Your task to perform on an android device: Add "asus zenbook" to the cart on costco Image 0: 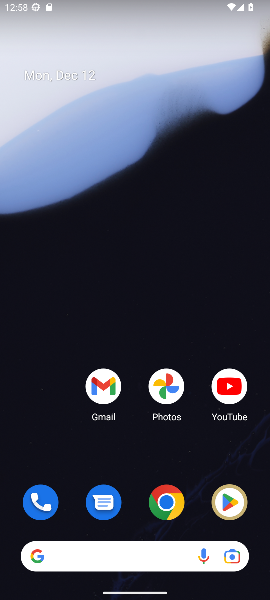
Step 0: click (161, 500)
Your task to perform on an android device: Add "asus zenbook" to the cart on costco Image 1: 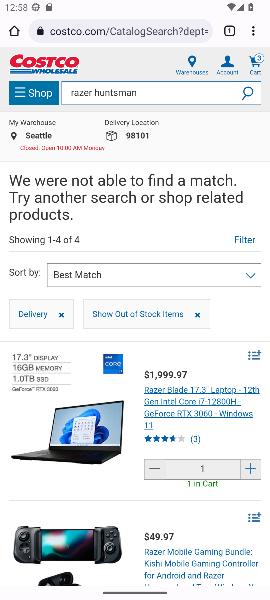
Step 1: click (144, 93)
Your task to perform on an android device: Add "asus zenbook" to the cart on costco Image 2: 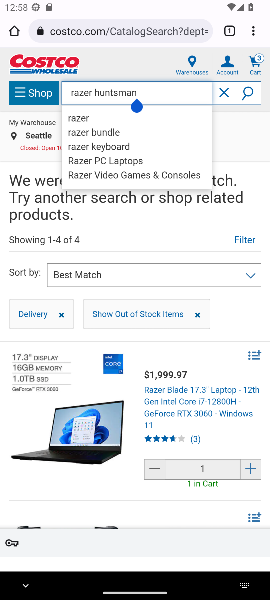
Step 2: click (219, 94)
Your task to perform on an android device: Add "asus zenbook" to the cart on costco Image 3: 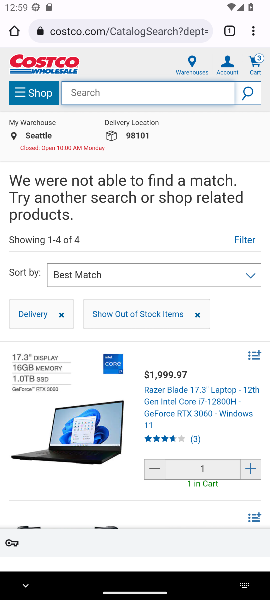
Step 3: type "asus zenbook"
Your task to perform on an android device: Add "asus zenbook" to the cart on costco Image 4: 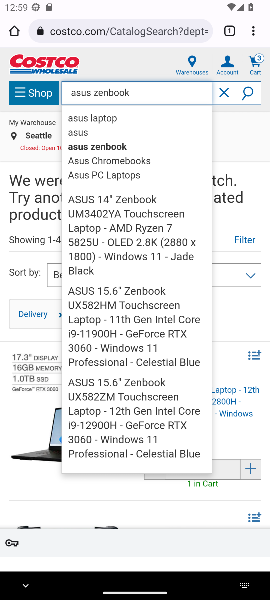
Step 4: click (243, 94)
Your task to perform on an android device: Add "asus zenbook" to the cart on costco Image 5: 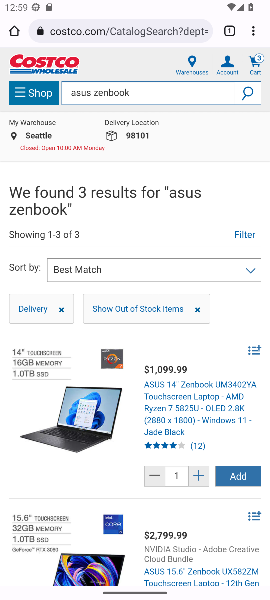
Step 5: click (226, 482)
Your task to perform on an android device: Add "asus zenbook" to the cart on costco Image 6: 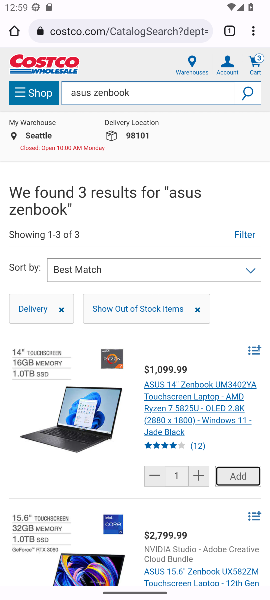
Step 6: task complete